Your task to perform on an android device: turn vacation reply on in the gmail app Image 0: 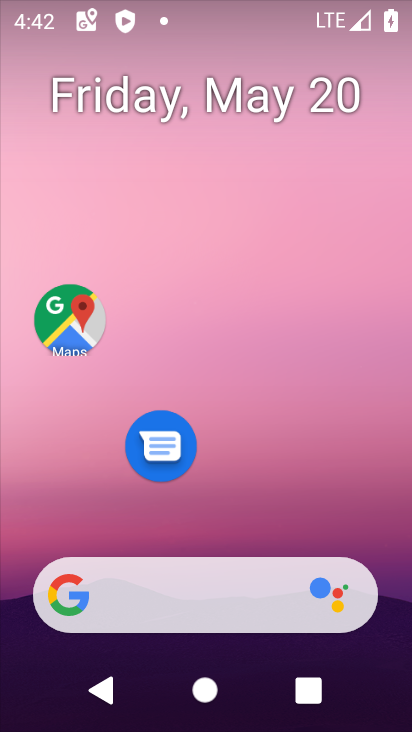
Step 0: drag from (204, 515) to (248, 108)
Your task to perform on an android device: turn vacation reply on in the gmail app Image 1: 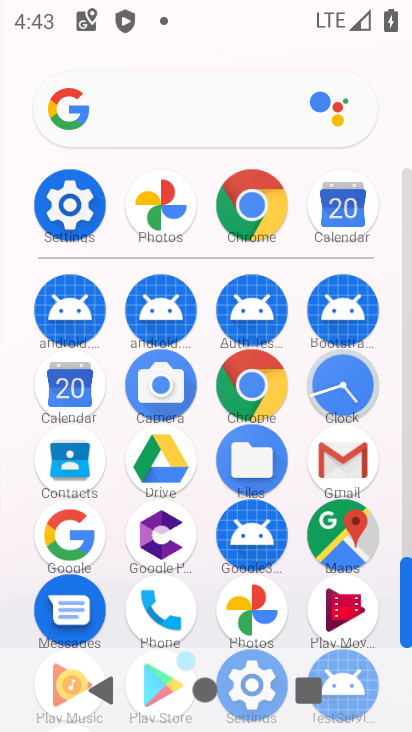
Step 1: click (335, 462)
Your task to perform on an android device: turn vacation reply on in the gmail app Image 2: 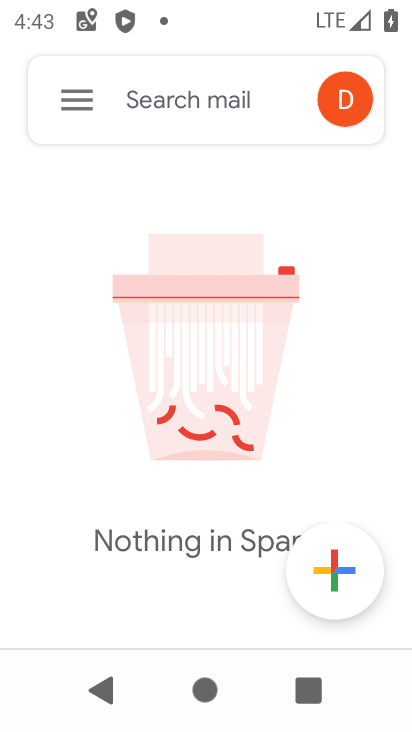
Step 2: click (80, 101)
Your task to perform on an android device: turn vacation reply on in the gmail app Image 3: 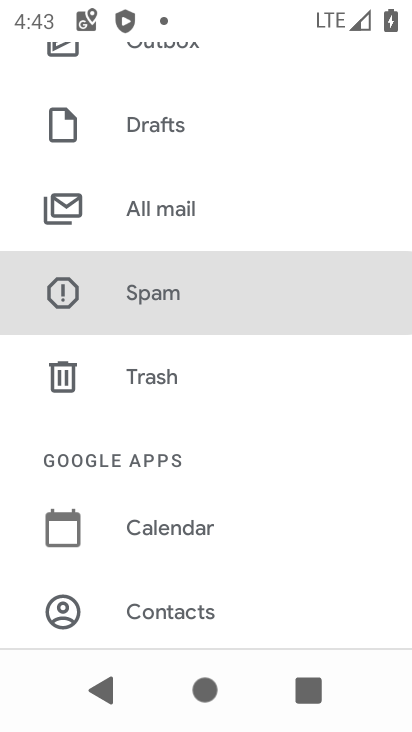
Step 3: drag from (152, 548) to (194, 260)
Your task to perform on an android device: turn vacation reply on in the gmail app Image 4: 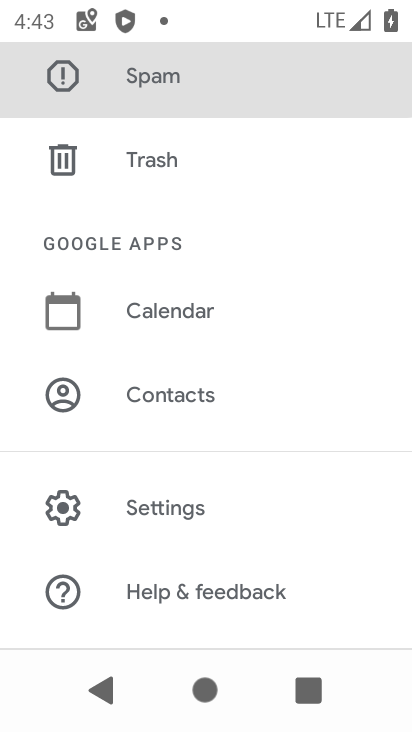
Step 4: click (155, 500)
Your task to perform on an android device: turn vacation reply on in the gmail app Image 5: 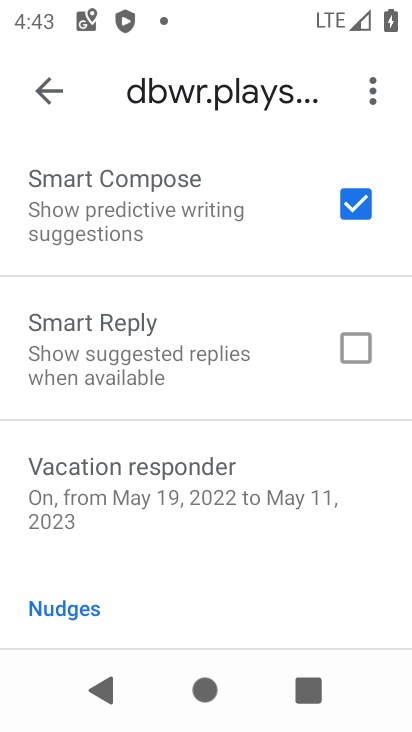
Step 5: click (147, 485)
Your task to perform on an android device: turn vacation reply on in the gmail app Image 6: 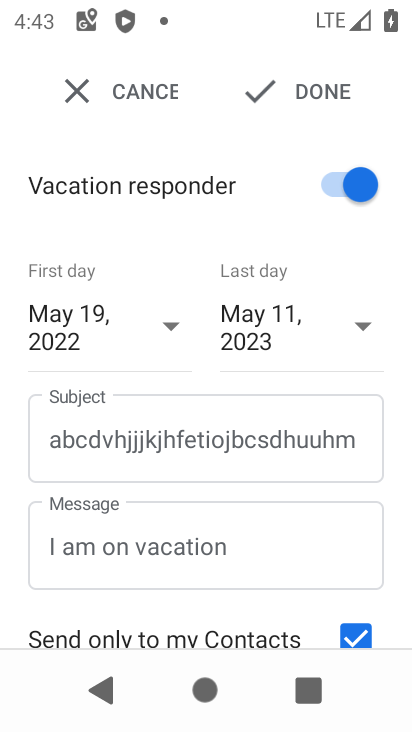
Step 6: task complete